Your task to perform on an android device: turn on the 24-hour format for clock Image 0: 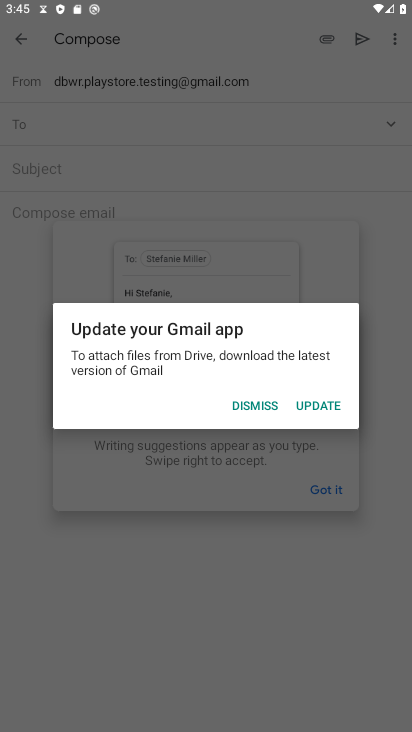
Step 0: press home button
Your task to perform on an android device: turn on the 24-hour format for clock Image 1: 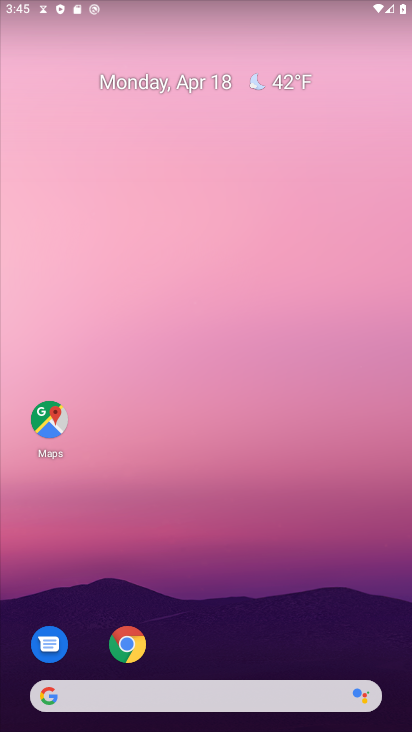
Step 1: drag from (292, 497) to (268, 81)
Your task to perform on an android device: turn on the 24-hour format for clock Image 2: 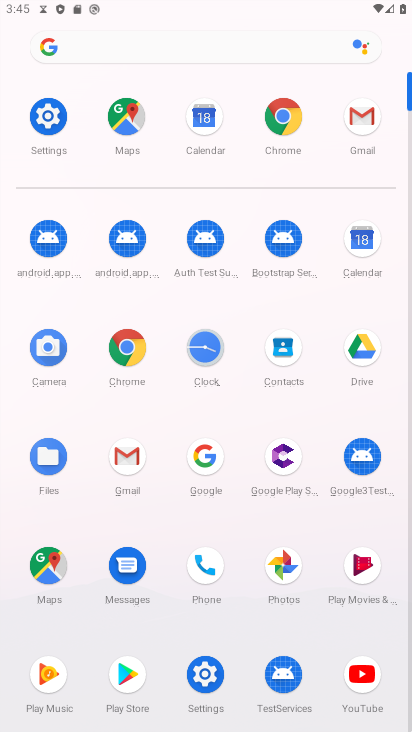
Step 2: click (203, 362)
Your task to perform on an android device: turn on the 24-hour format for clock Image 3: 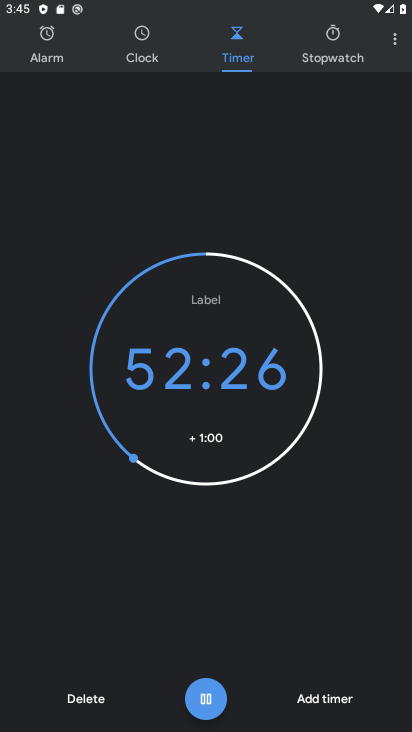
Step 3: click (397, 36)
Your task to perform on an android device: turn on the 24-hour format for clock Image 4: 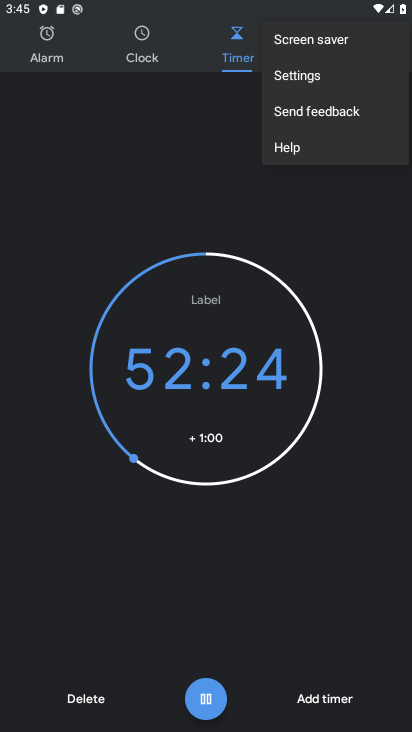
Step 4: click (319, 78)
Your task to perform on an android device: turn on the 24-hour format for clock Image 5: 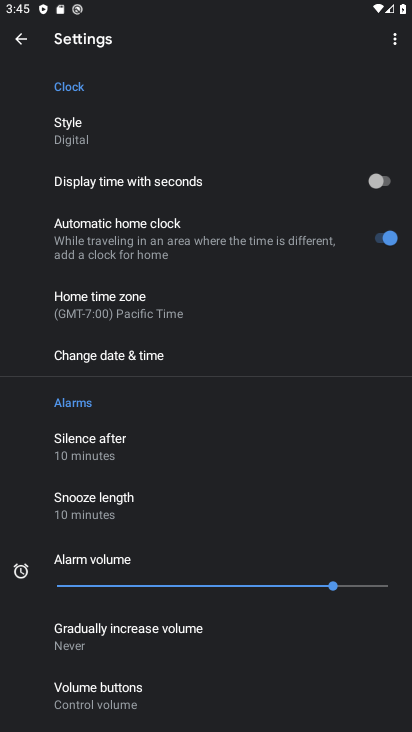
Step 5: drag from (225, 663) to (243, 149)
Your task to perform on an android device: turn on the 24-hour format for clock Image 6: 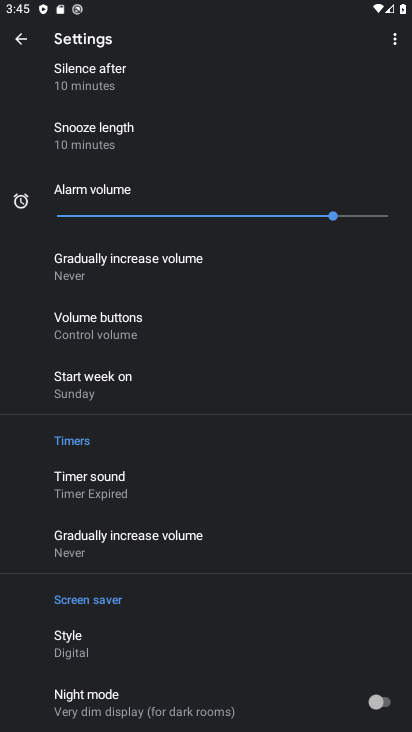
Step 6: drag from (279, 582) to (279, 156)
Your task to perform on an android device: turn on the 24-hour format for clock Image 7: 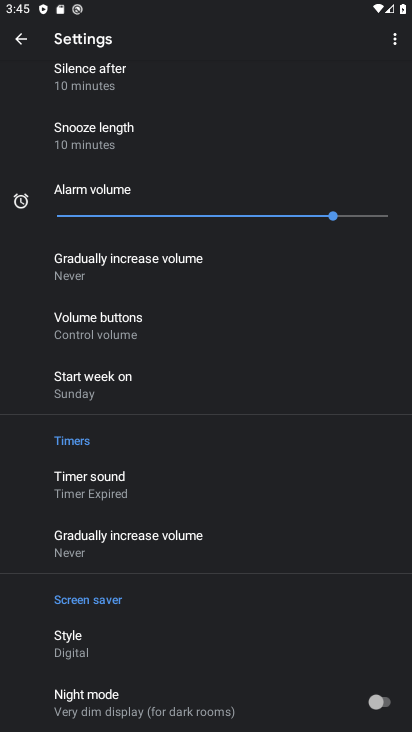
Step 7: drag from (286, 631) to (280, 165)
Your task to perform on an android device: turn on the 24-hour format for clock Image 8: 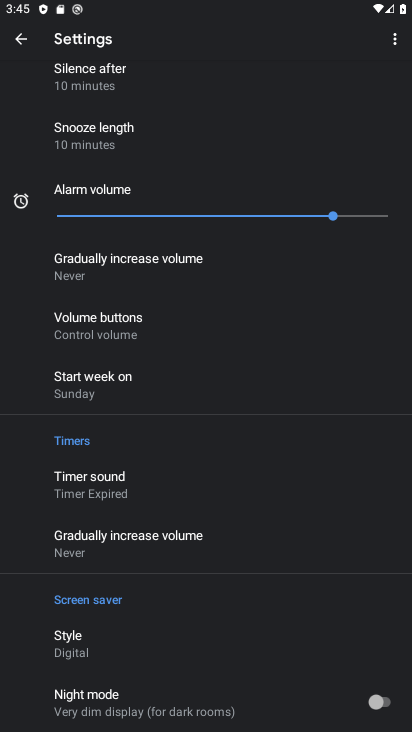
Step 8: drag from (253, 635) to (246, 180)
Your task to perform on an android device: turn on the 24-hour format for clock Image 9: 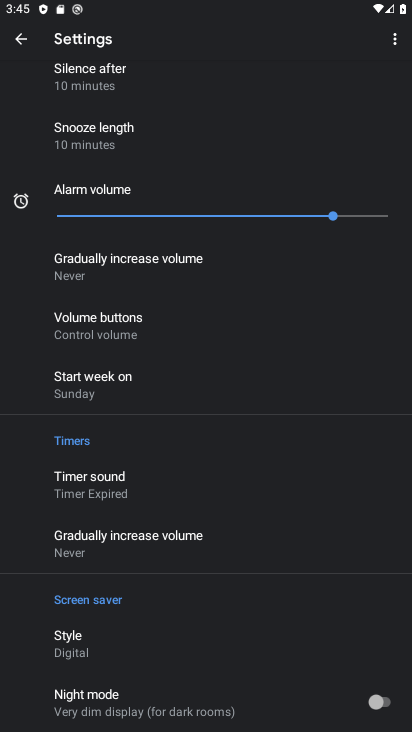
Step 9: drag from (244, 192) to (267, 614)
Your task to perform on an android device: turn on the 24-hour format for clock Image 10: 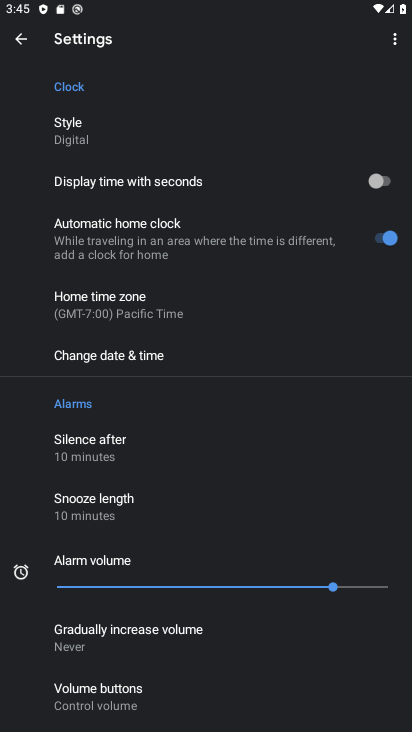
Step 10: click (150, 353)
Your task to perform on an android device: turn on the 24-hour format for clock Image 11: 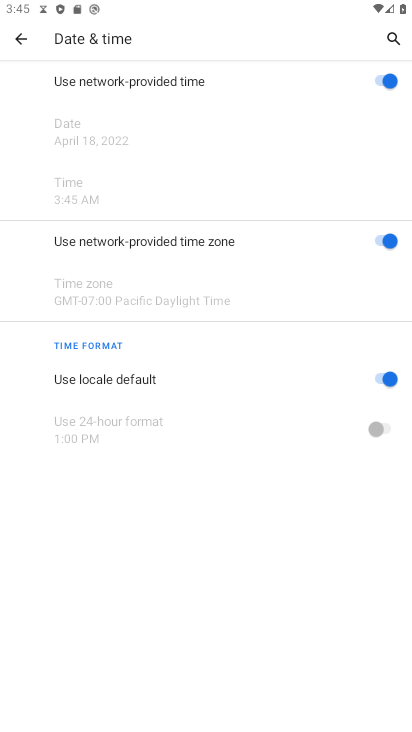
Step 11: click (379, 380)
Your task to perform on an android device: turn on the 24-hour format for clock Image 12: 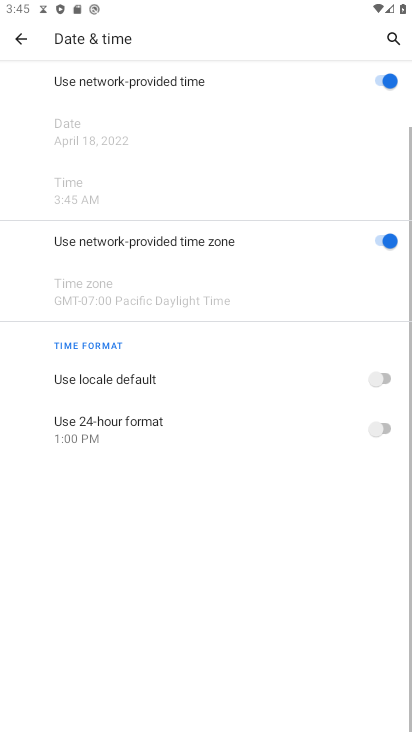
Step 12: click (387, 426)
Your task to perform on an android device: turn on the 24-hour format for clock Image 13: 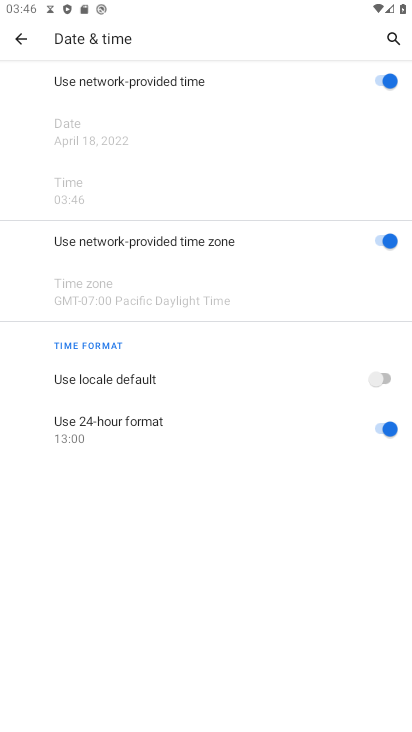
Step 13: task complete